Your task to perform on an android device: Open internet settings Image 0: 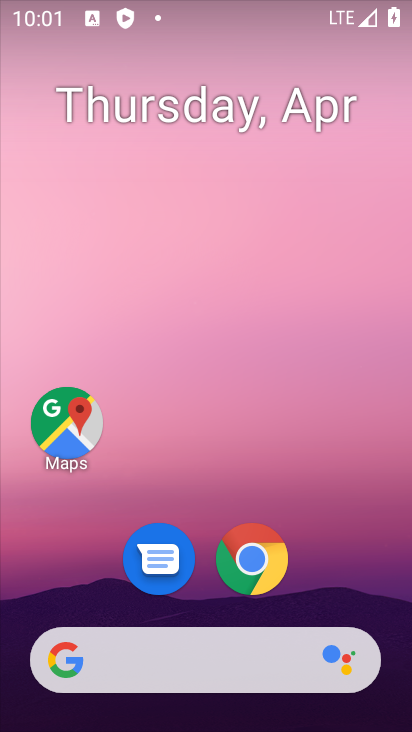
Step 0: click (249, 565)
Your task to perform on an android device: Open internet settings Image 1: 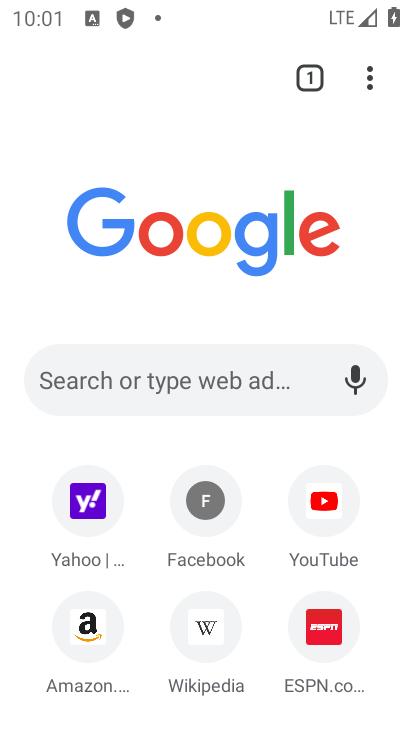
Step 1: press home button
Your task to perform on an android device: Open internet settings Image 2: 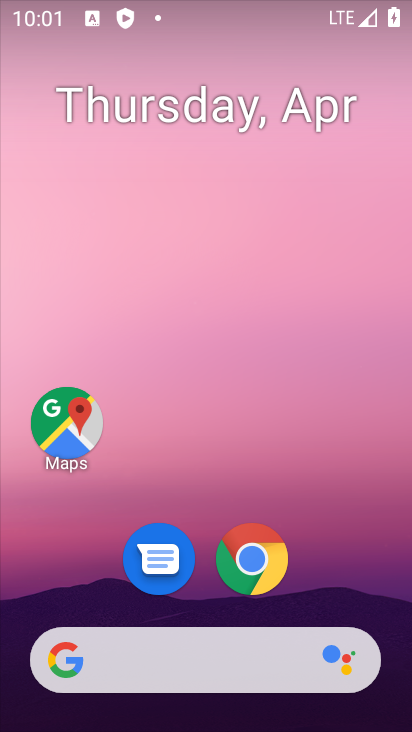
Step 2: drag from (231, 721) to (337, 48)
Your task to perform on an android device: Open internet settings Image 3: 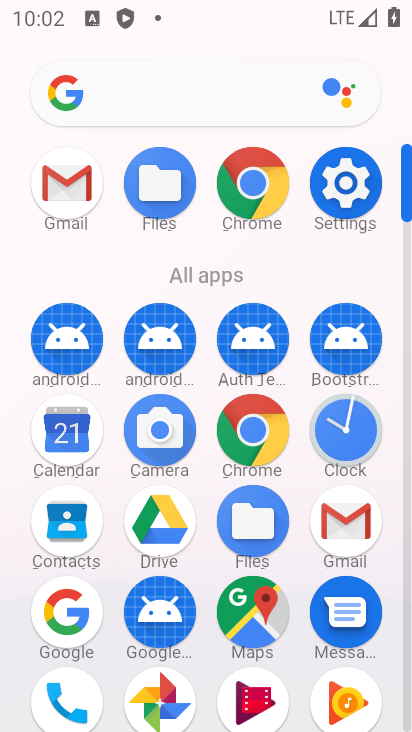
Step 3: click (364, 194)
Your task to perform on an android device: Open internet settings Image 4: 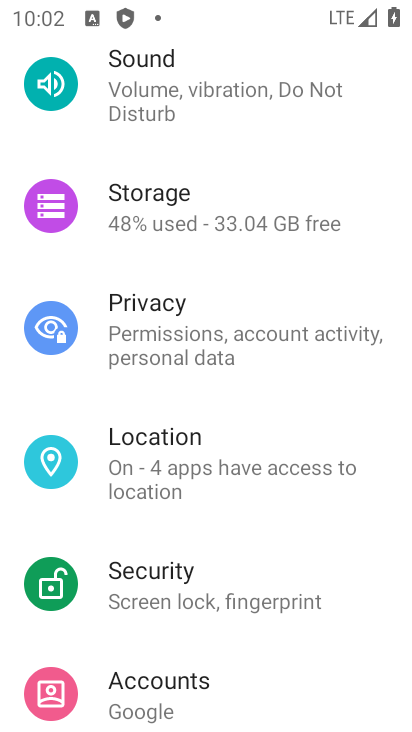
Step 4: drag from (292, 170) to (270, 683)
Your task to perform on an android device: Open internet settings Image 5: 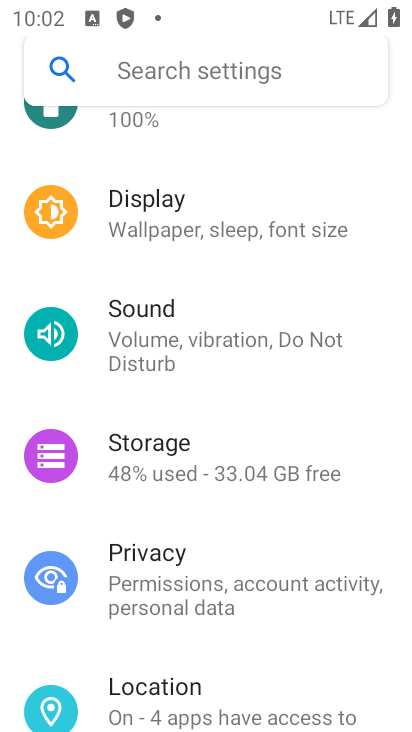
Step 5: drag from (268, 179) to (241, 696)
Your task to perform on an android device: Open internet settings Image 6: 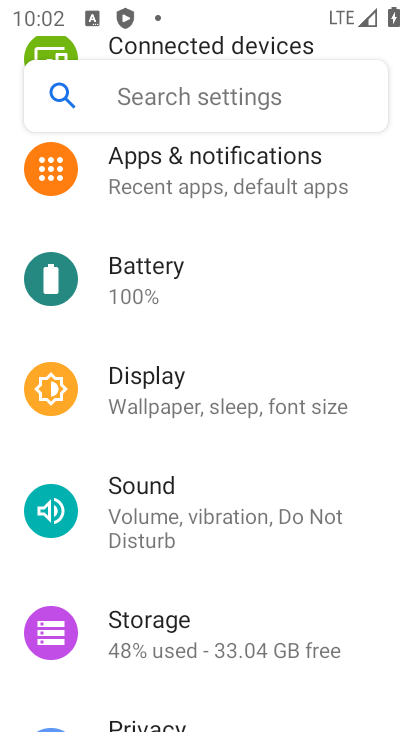
Step 6: drag from (363, 368) to (291, 728)
Your task to perform on an android device: Open internet settings Image 7: 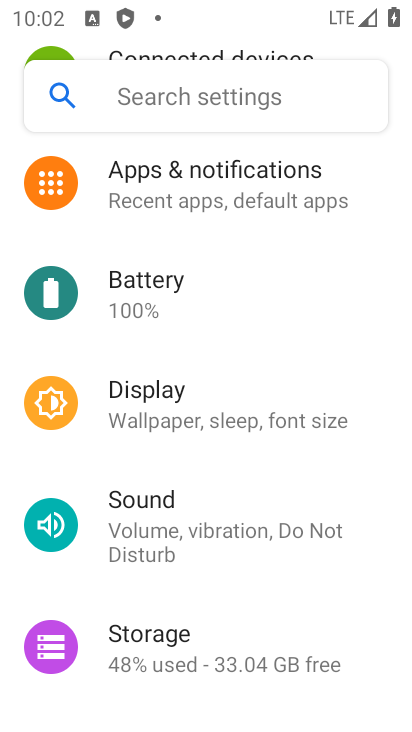
Step 7: drag from (308, 363) to (283, 726)
Your task to perform on an android device: Open internet settings Image 8: 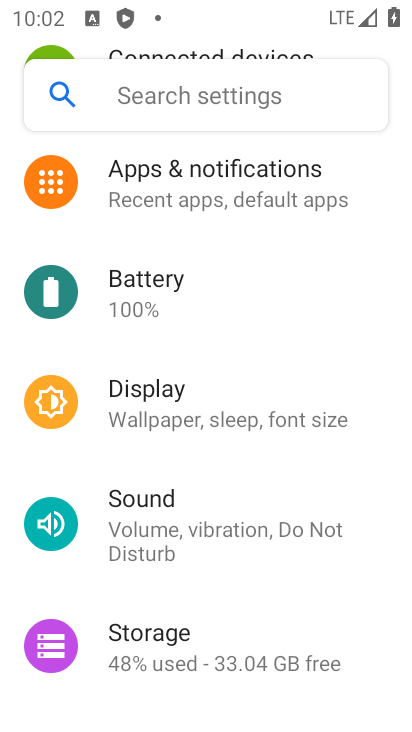
Step 8: drag from (334, 215) to (271, 729)
Your task to perform on an android device: Open internet settings Image 9: 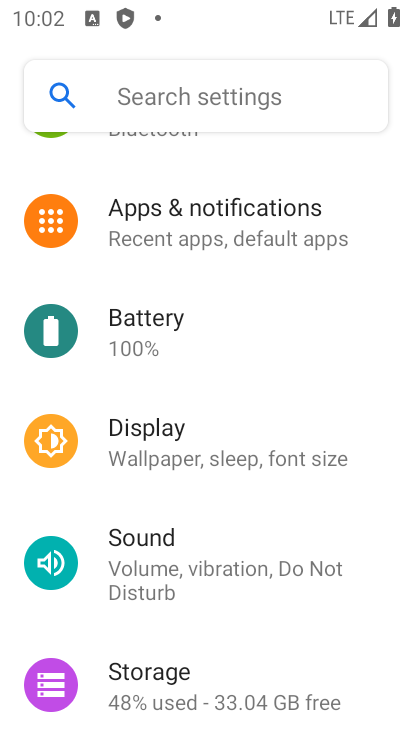
Step 9: drag from (340, 185) to (254, 698)
Your task to perform on an android device: Open internet settings Image 10: 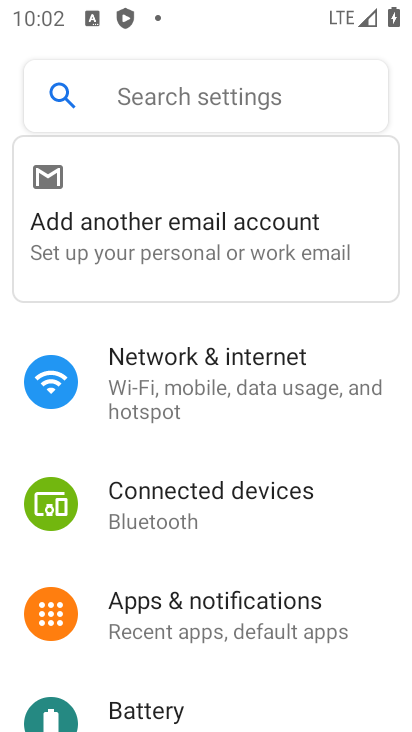
Step 10: click (284, 368)
Your task to perform on an android device: Open internet settings Image 11: 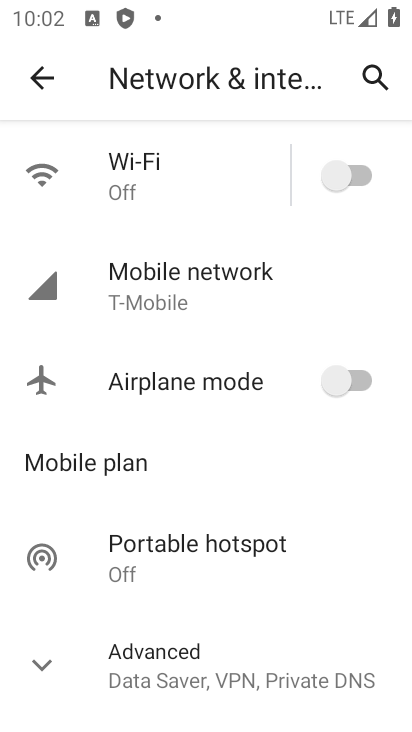
Step 11: task complete